Your task to perform on an android device: open a new tab in the chrome app Image 0: 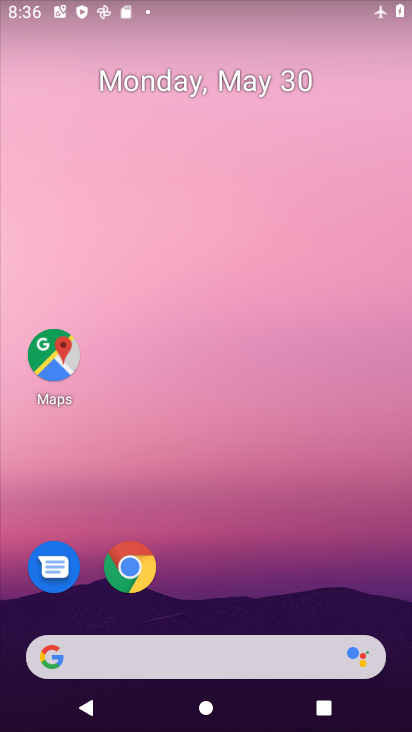
Step 0: click (147, 547)
Your task to perform on an android device: open a new tab in the chrome app Image 1: 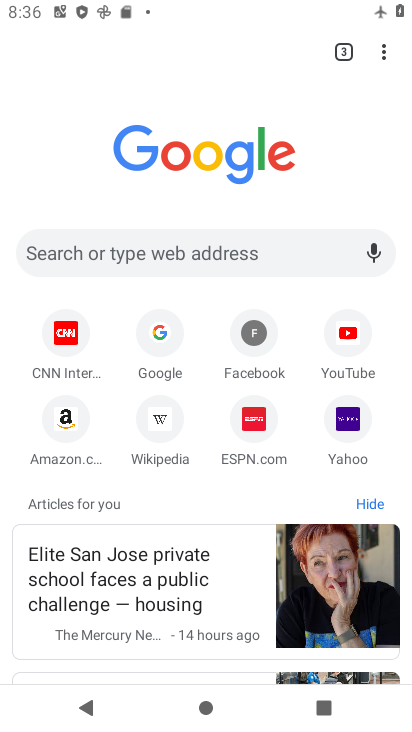
Step 1: click (335, 54)
Your task to perform on an android device: open a new tab in the chrome app Image 2: 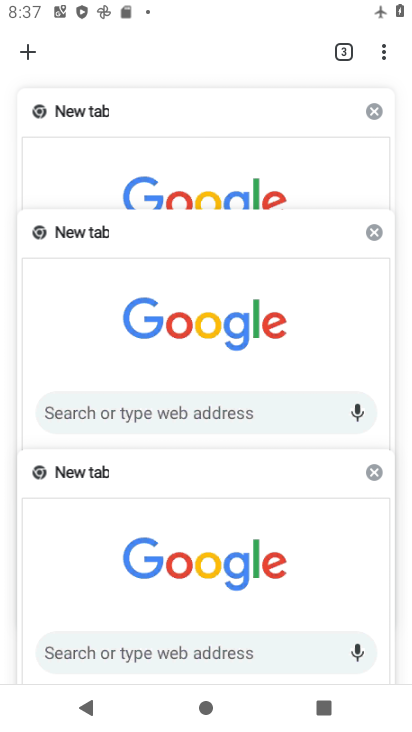
Step 2: click (36, 46)
Your task to perform on an android device: open a new tab in the chrome app Image 3: 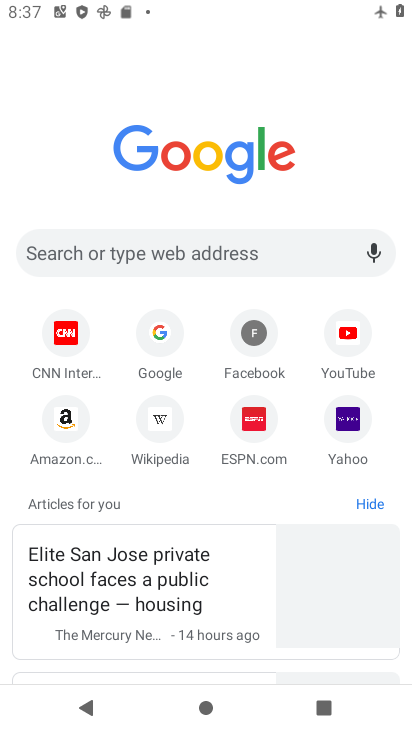
Step 3: task complete